Your task to perform on an android device: turn vacation reply on in the gmail app Image 0: 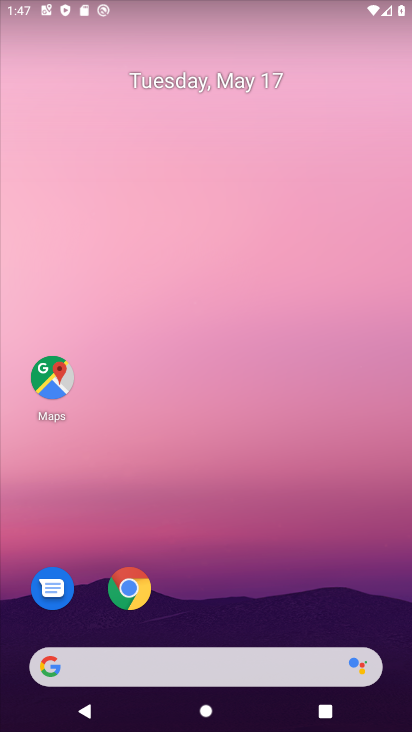
Step 0: drag from (182, 619) to (127, 204)
Your task to perform on an android device: turn vacation reply on in the gmail app Image 1: 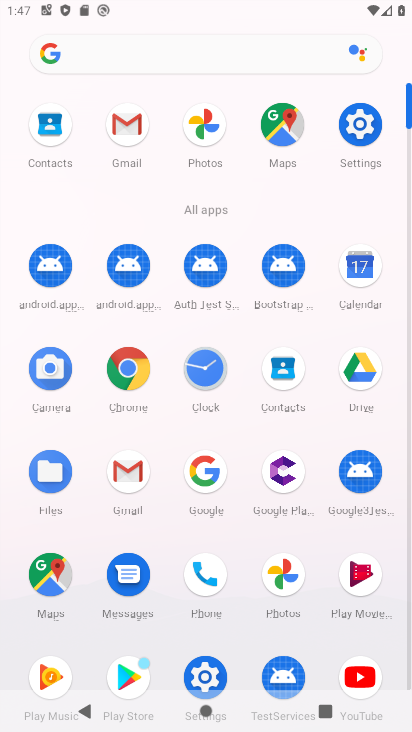
Step 1: click (140, 116)
Your task to perform on an android device: turn vacation reply on in the gmail app Image 2: 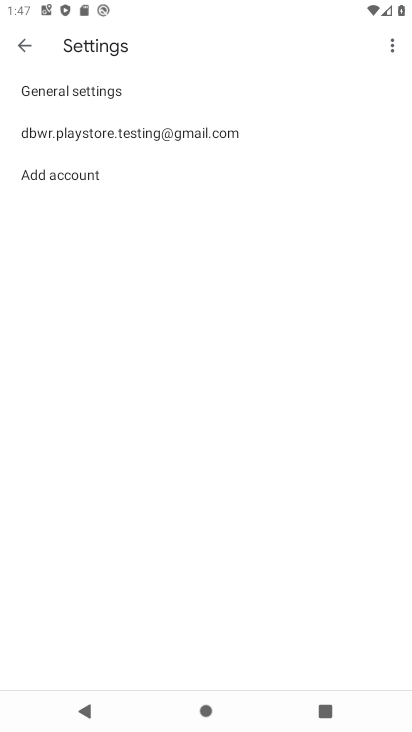
Step 2: click (154, 134)
Your task to perform on an android device: turn vacation reply on in the gmail app Image 3: 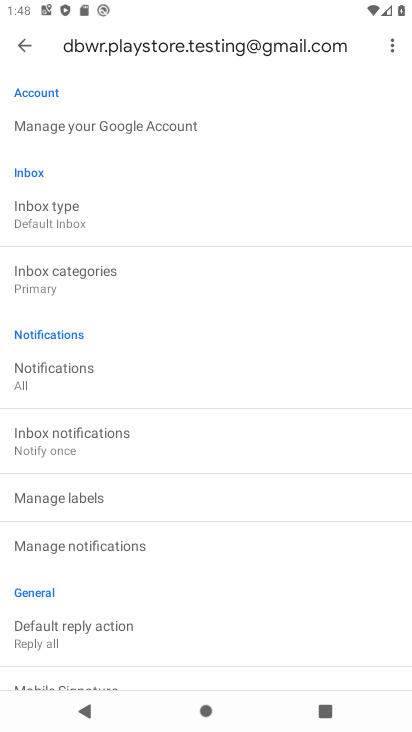
Step 3: drag from (165, 603) to (197, 174)
Your task to perform on an android device: turn vacation reply on in the gmail app Image 4: 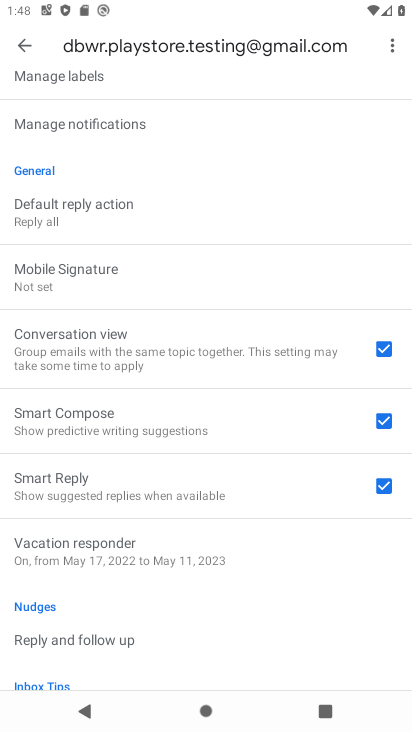
Step 4: click (136, 558)
Your task to perform on an android device: turn vacation reply on in the gmail app Image 5: 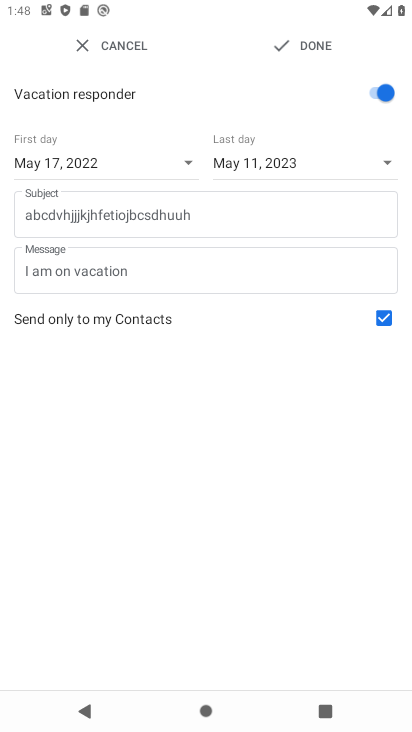
Step 5: task complete